Your task to perform on an android device: Clear the cart on target. Search for asus zenbook on target, select the first entry, and add it to the cart. Image 0: 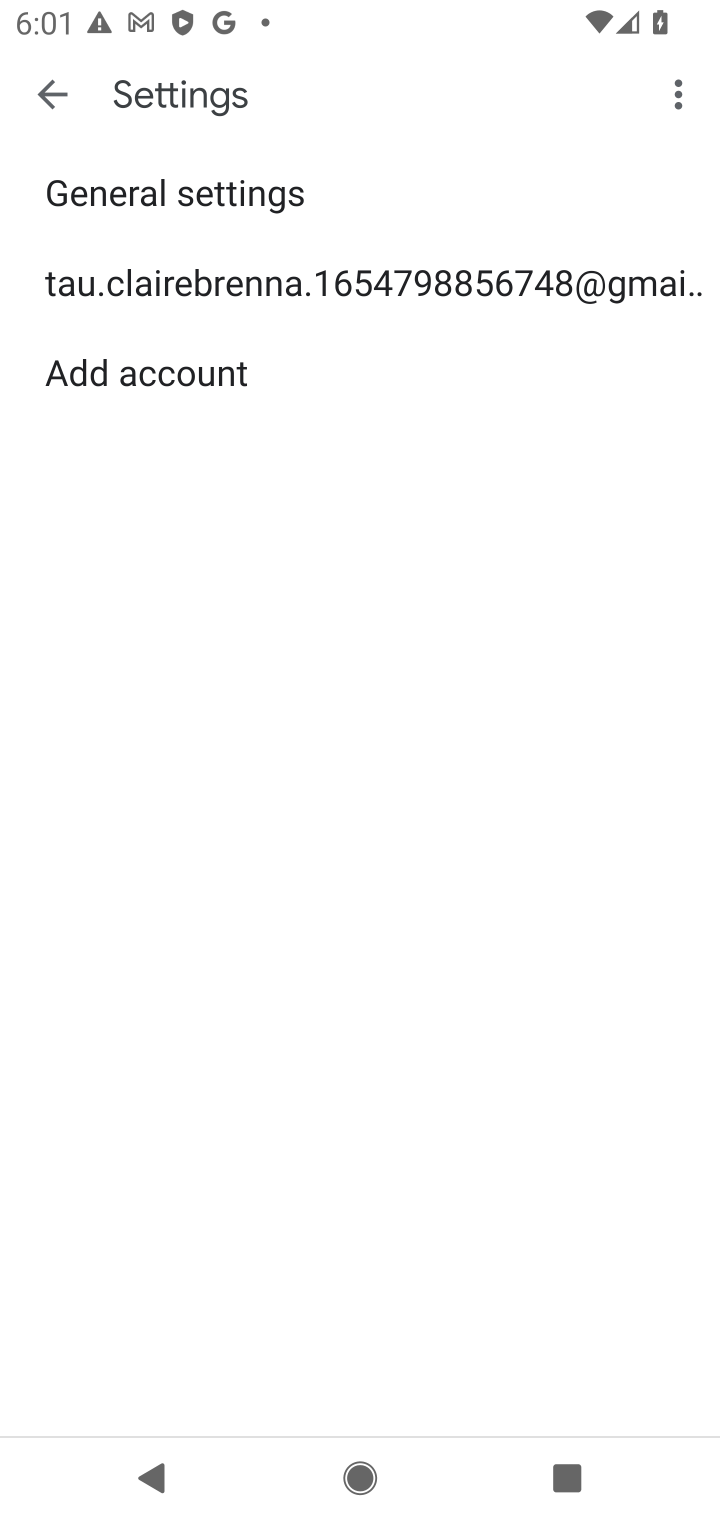
Step 0: press home button
Your task to perform on an android device: Clear the cart on target. Search for asus zenbook on target, select the first entry, and add it to the cart. Image 1: 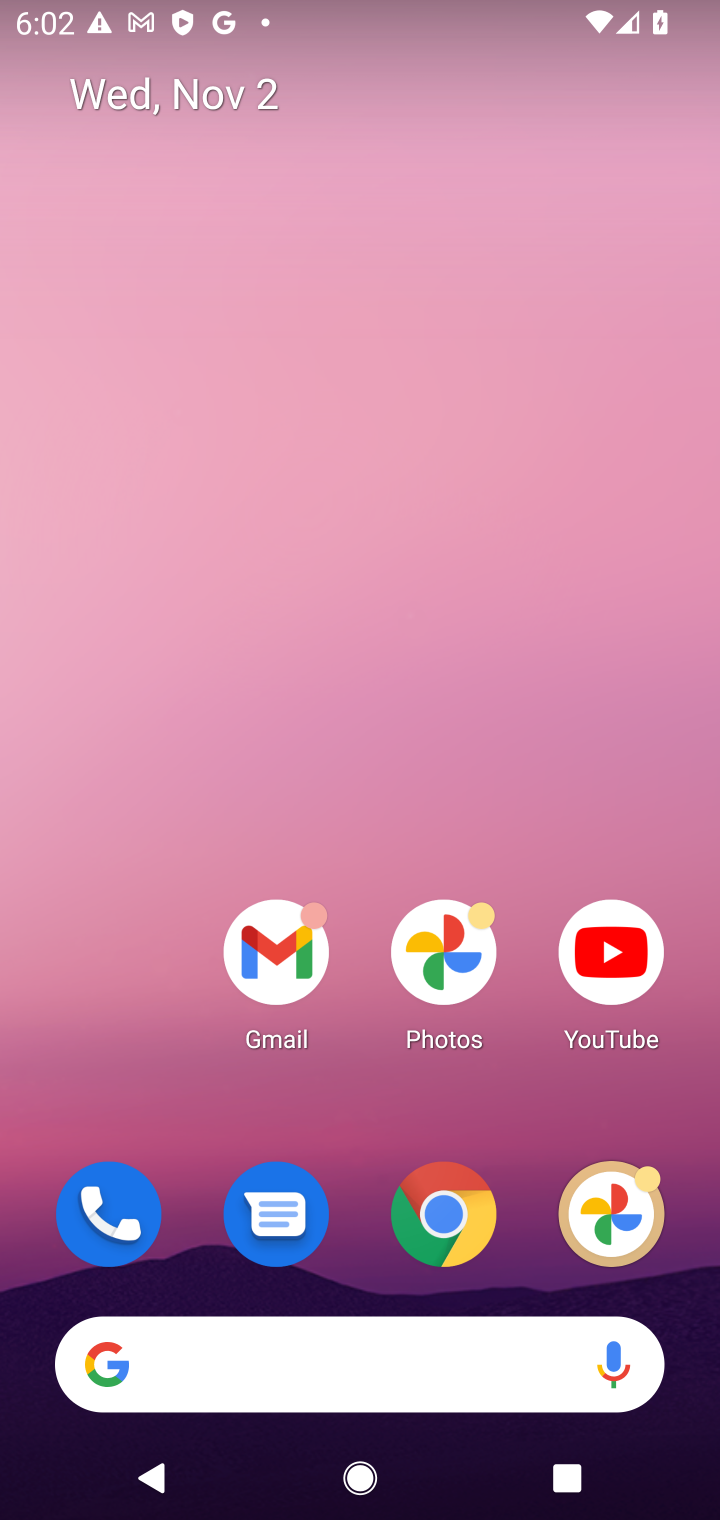
Step 1: click (442, 1216)
Your task to perform on an android device: Clear the cart on target. Search for asus zenbook on target, select the first entry, and add it to the cart. Image 2: 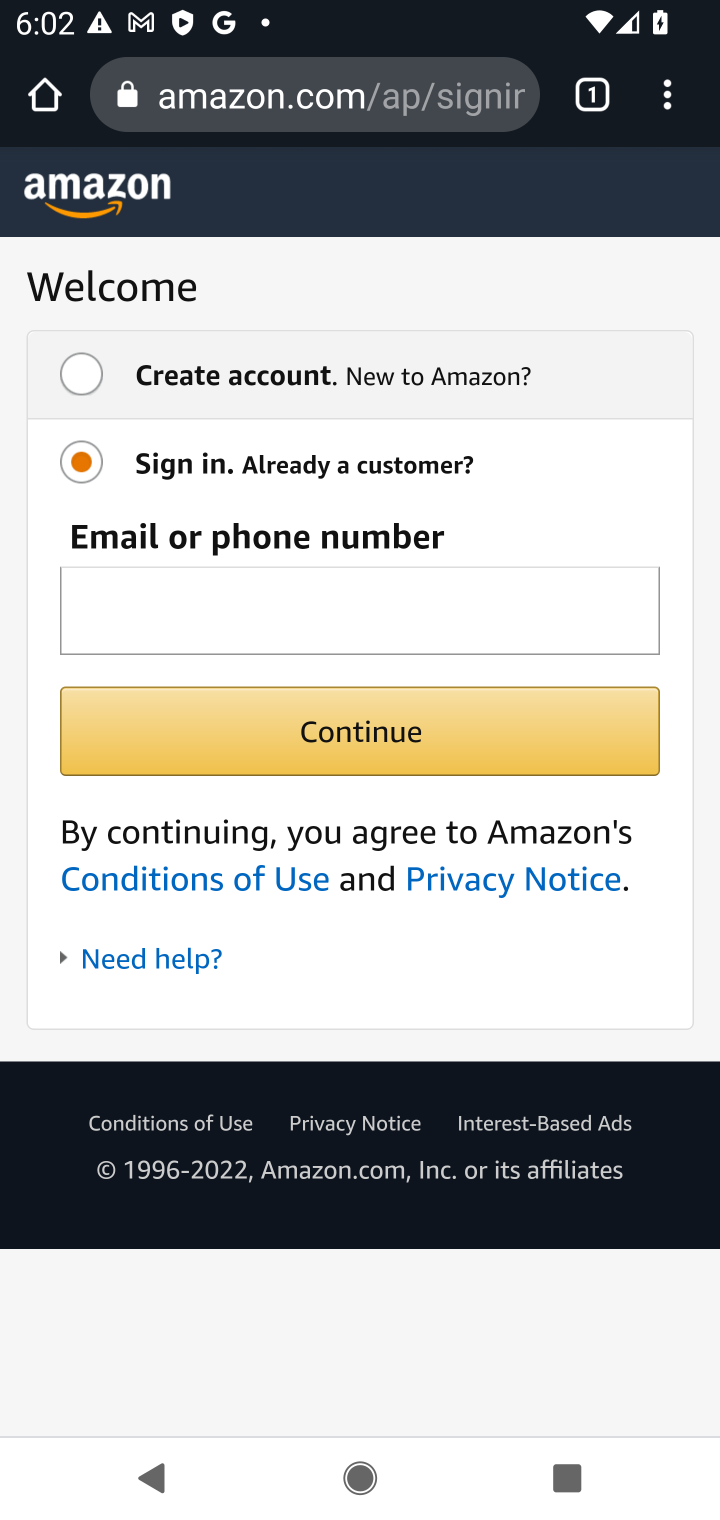
Step 2: click (390, 101)
Your task to perform on an android device: Clear the cart on target. Search for asus zenbook on target, select the first entry, and add it to the cart. Image 3: 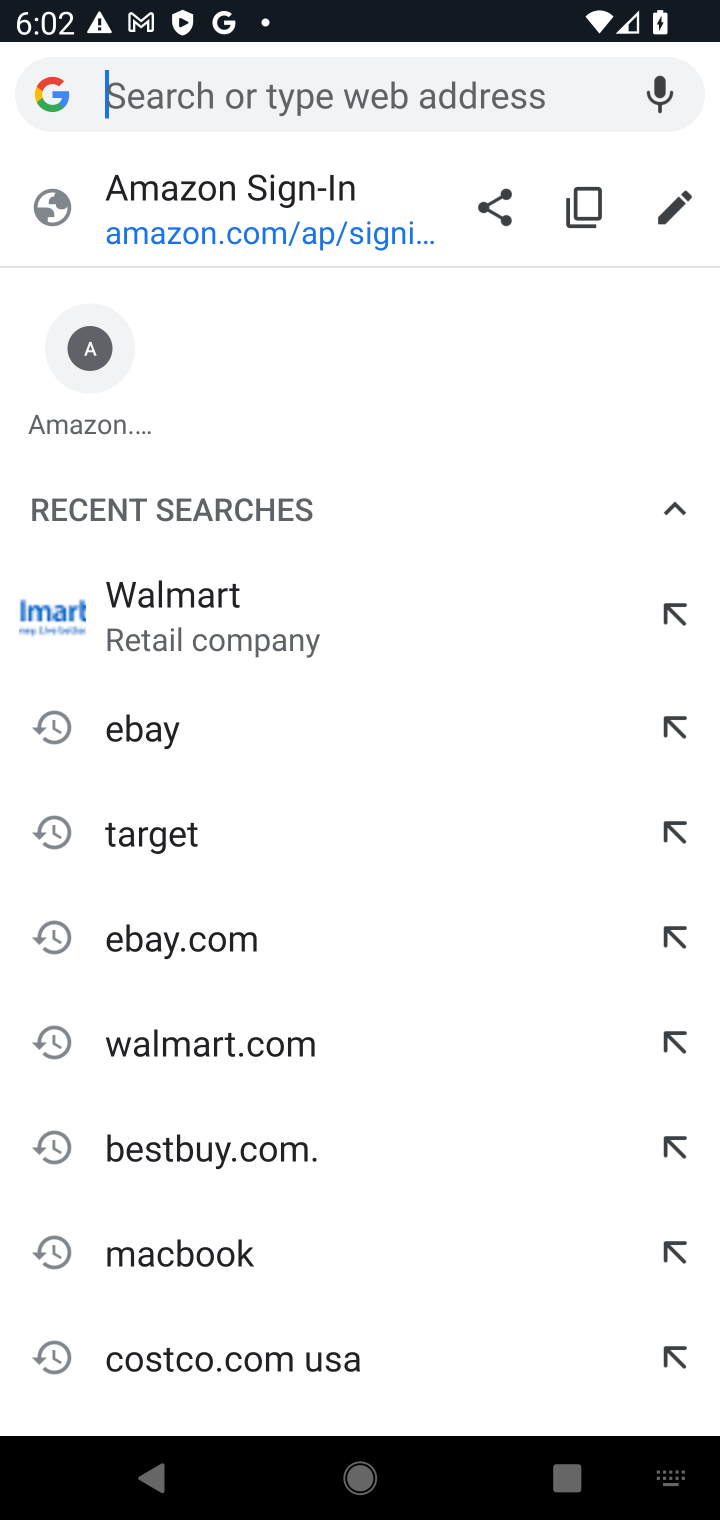
Step 3: type "target"
Your task to perform on an android device: Clear the cart on target. Search for asus zenbook on target, select the first entry, and add it to the cart. Image 4: 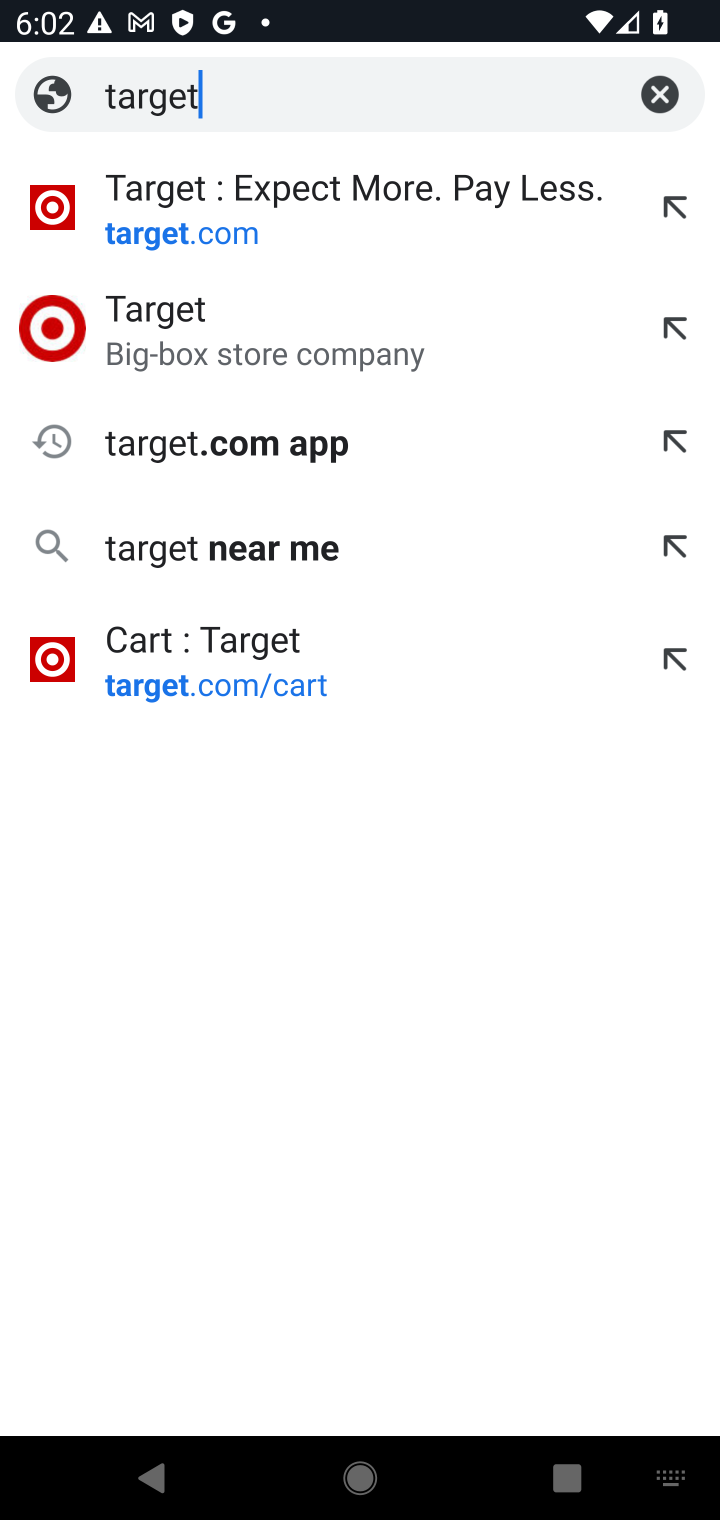
Step 4: click (158, 311)
Your task to perform on an android device: Clear the cart on target. Search for asus zenbook on target, select the first entry, and add it to the cart. Image 5: 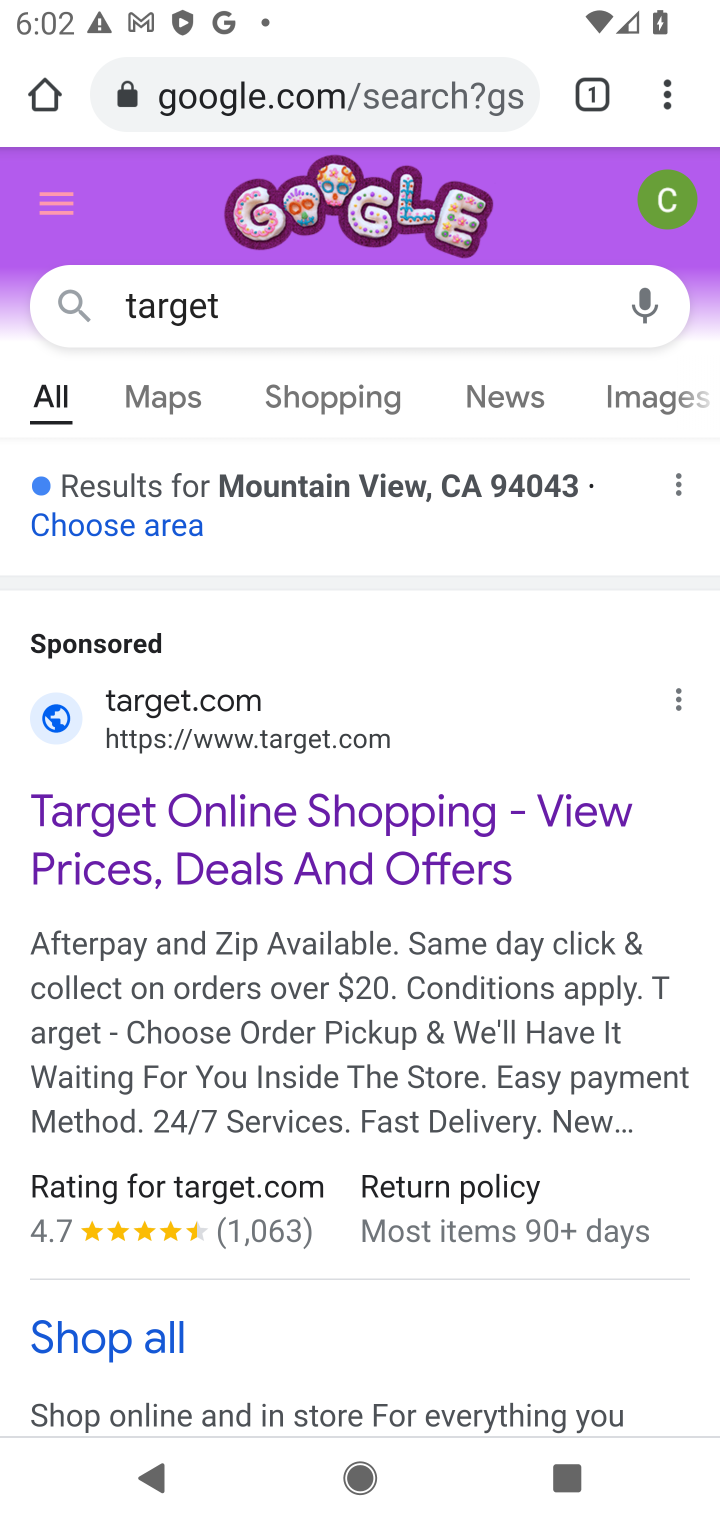
Step 5: drag from (279, 1327) to (422, 558)
Your task to perform on an android device: Clear the cart on target. Search for asus zenbook on target, select the first entry, and add it to the cart. Image 6: 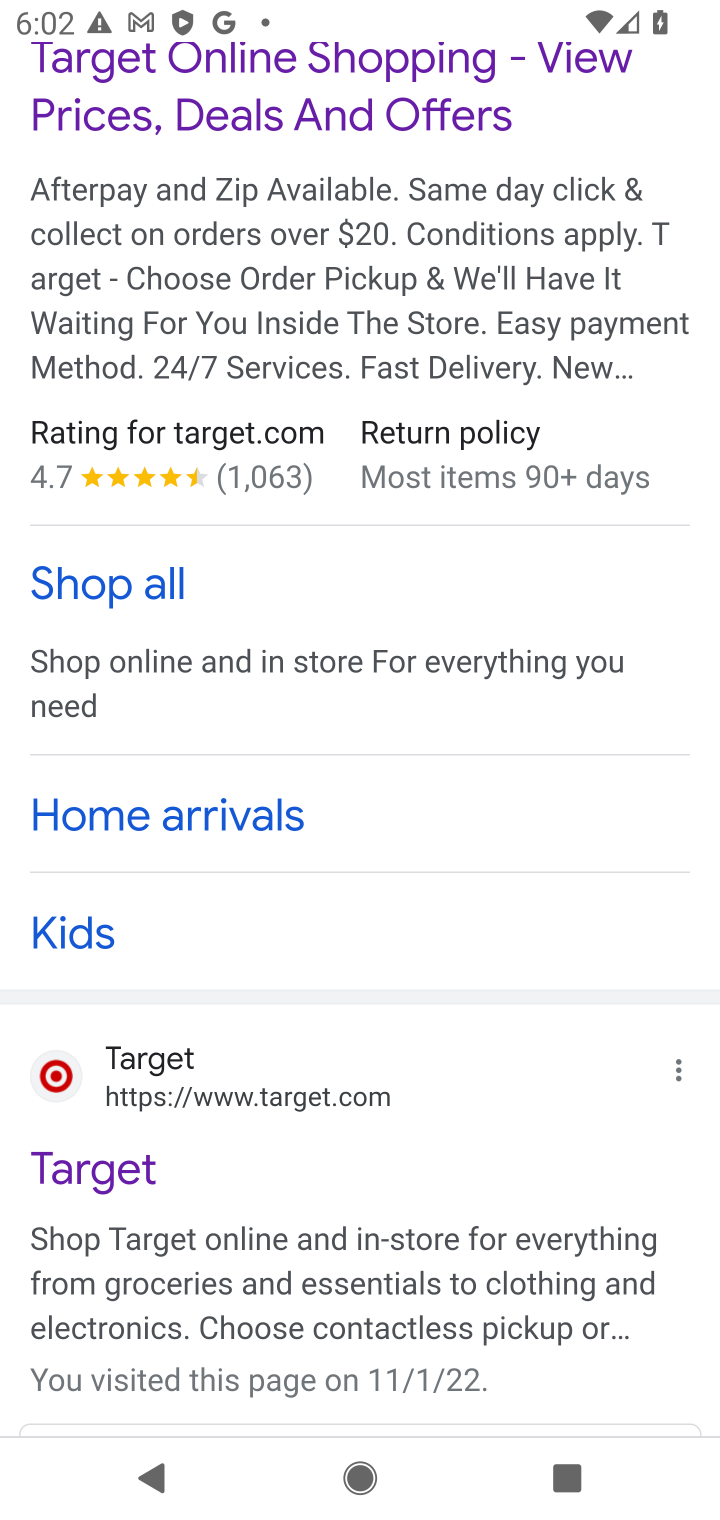
Step 6: click (223, 1160)
Your task to perform on an android device: Clear the cart on target. Search for asus zenbook on target, select the first entry, and add it to the cart. Image 7: 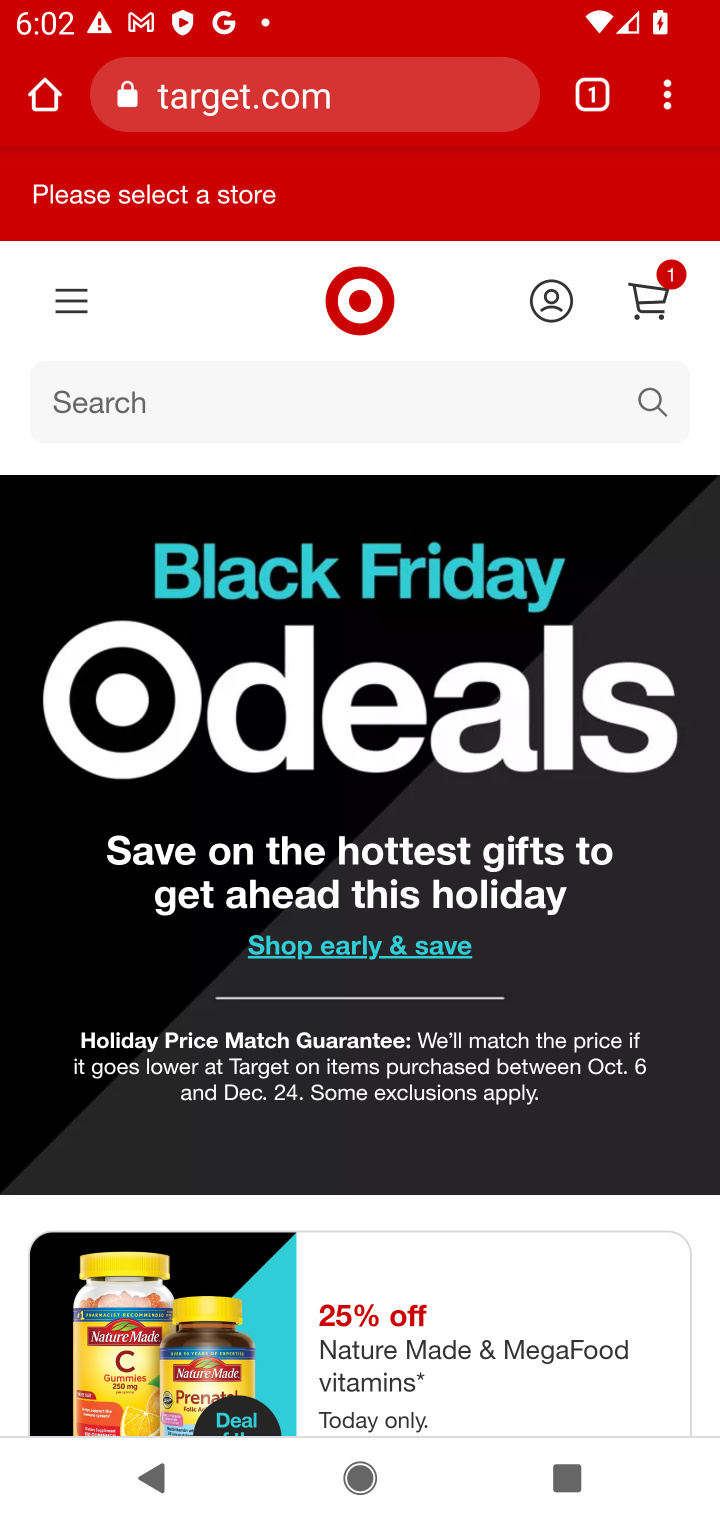
Step 7: click (661, 299)
Your task to perform on an android device: Clear the cart on target. Search for asus zenbook on target, select the first entry, and add it to the cart. Image 8: 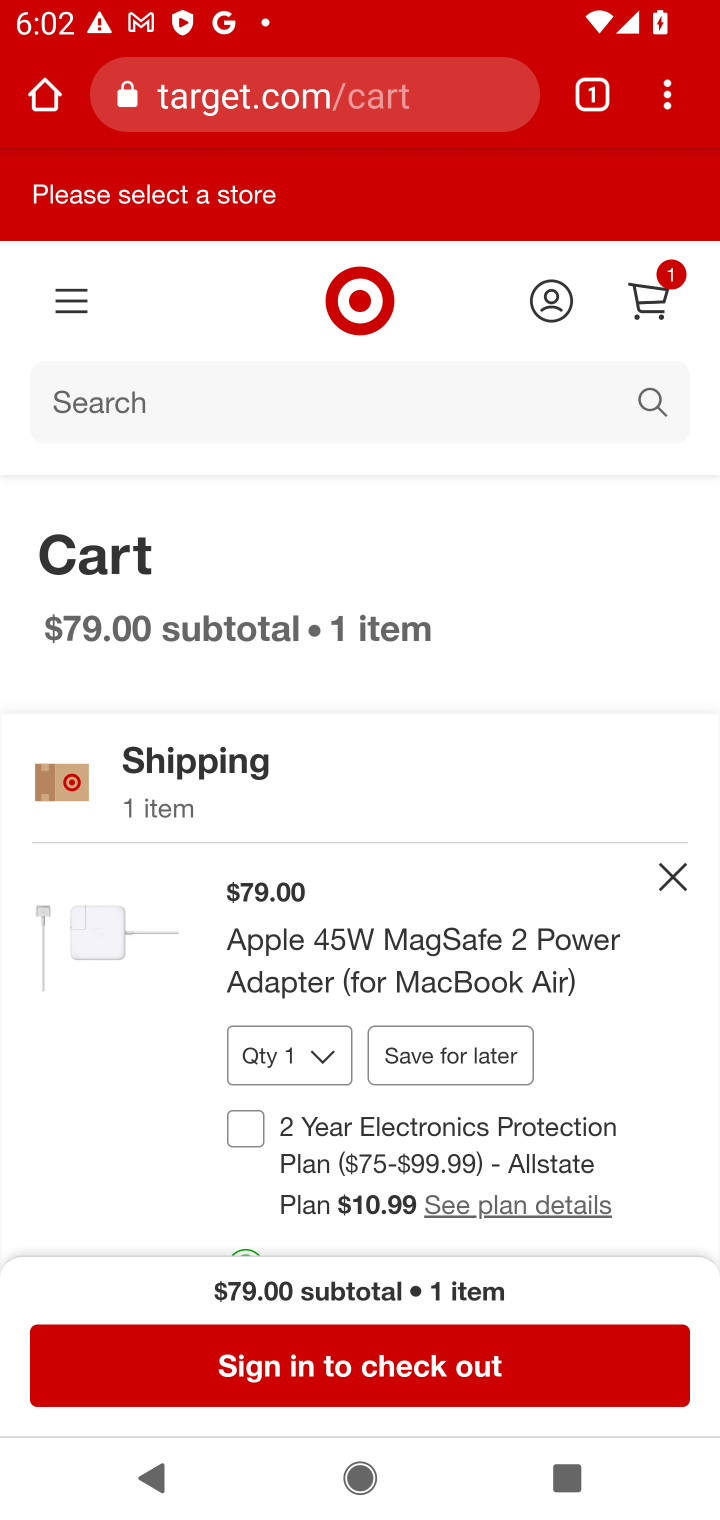
Step 8: click (674, 876)
Your task to perform on an android device: Clear the cart on target. Search for asus zenbook on target, select the first entry, and add it to the cart. Image 9: 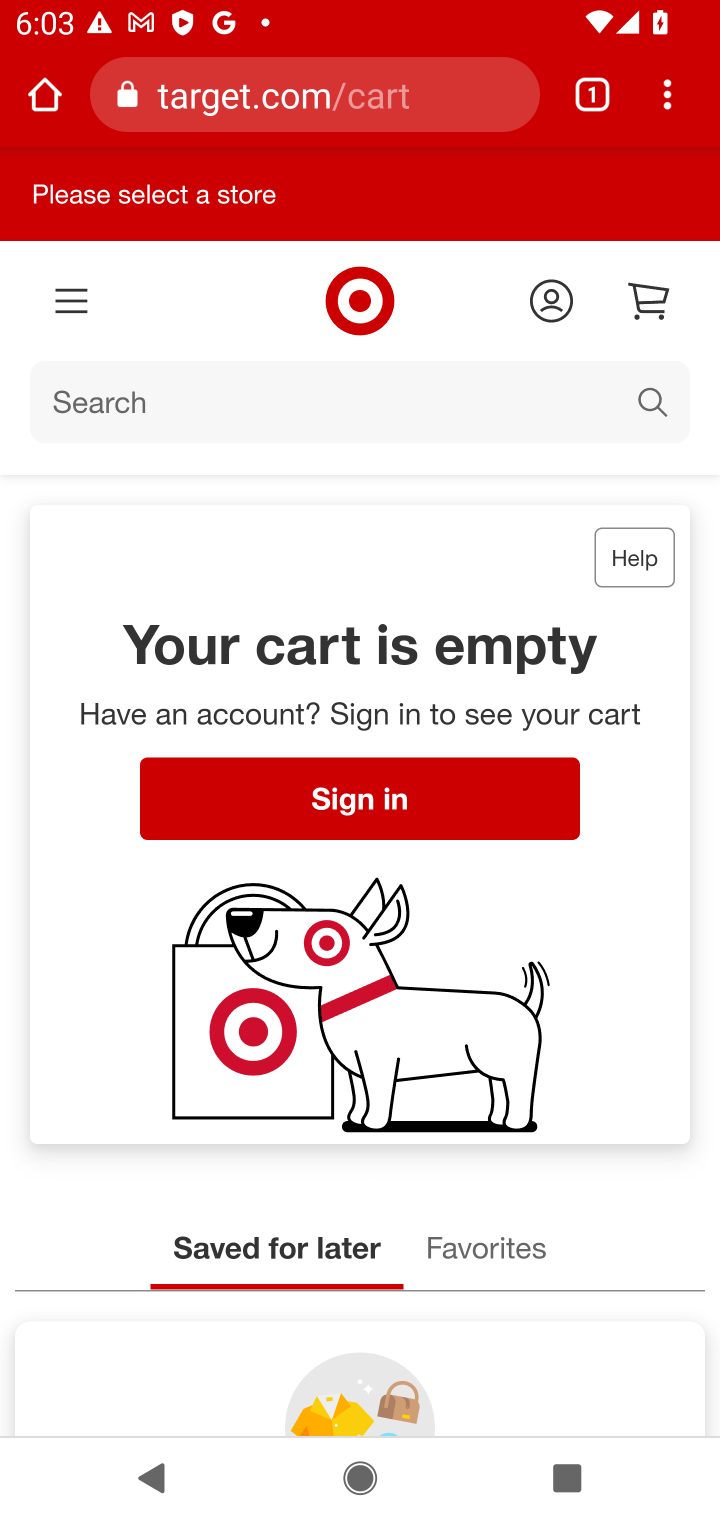
Step 9: click (293, 399)
Your task to perform on an android device: Clear the cart on target. Search for asus zenbook on target, select the first entry, and add it to the cart. Image 10: 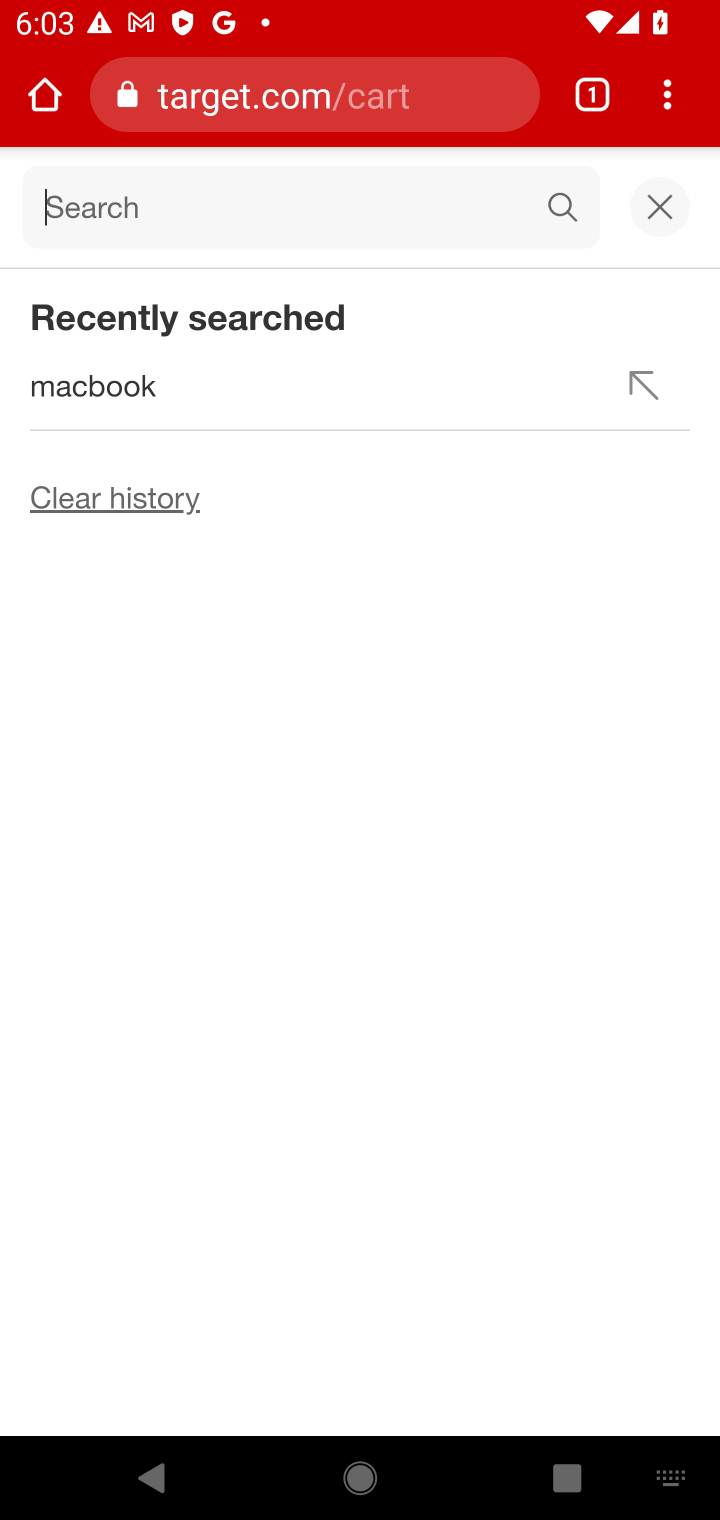
Step 10: type "asus zenbook"
Your task to perform on an android device: Clear the cart on target. Search for asus zenbook on target, select the first entry, and add it to the cart. Image 11: 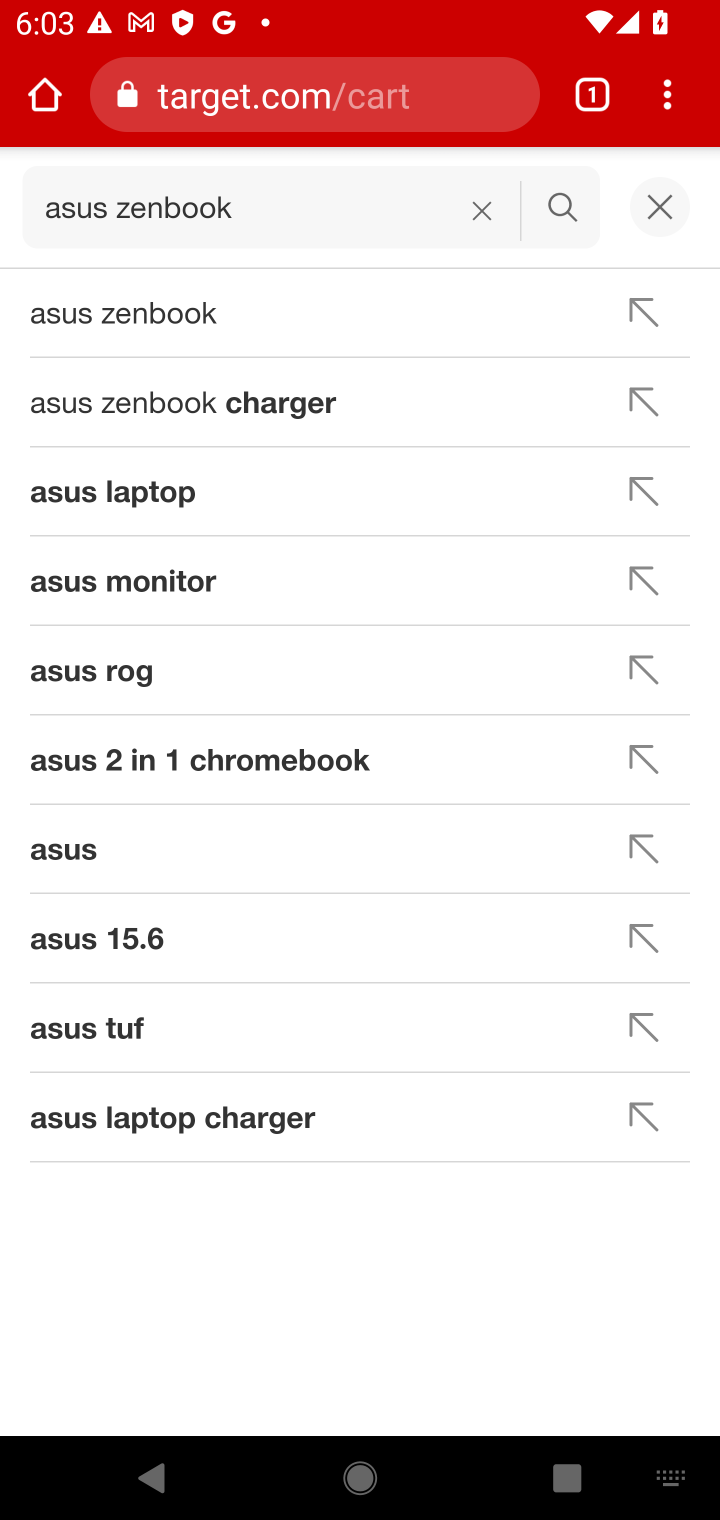
Step 11: click (200, 325)
Your task to perform on an android device: Clear the cart on target. Search for asus zenbook on target, select the first entry, and add it to the cart. Image 12: 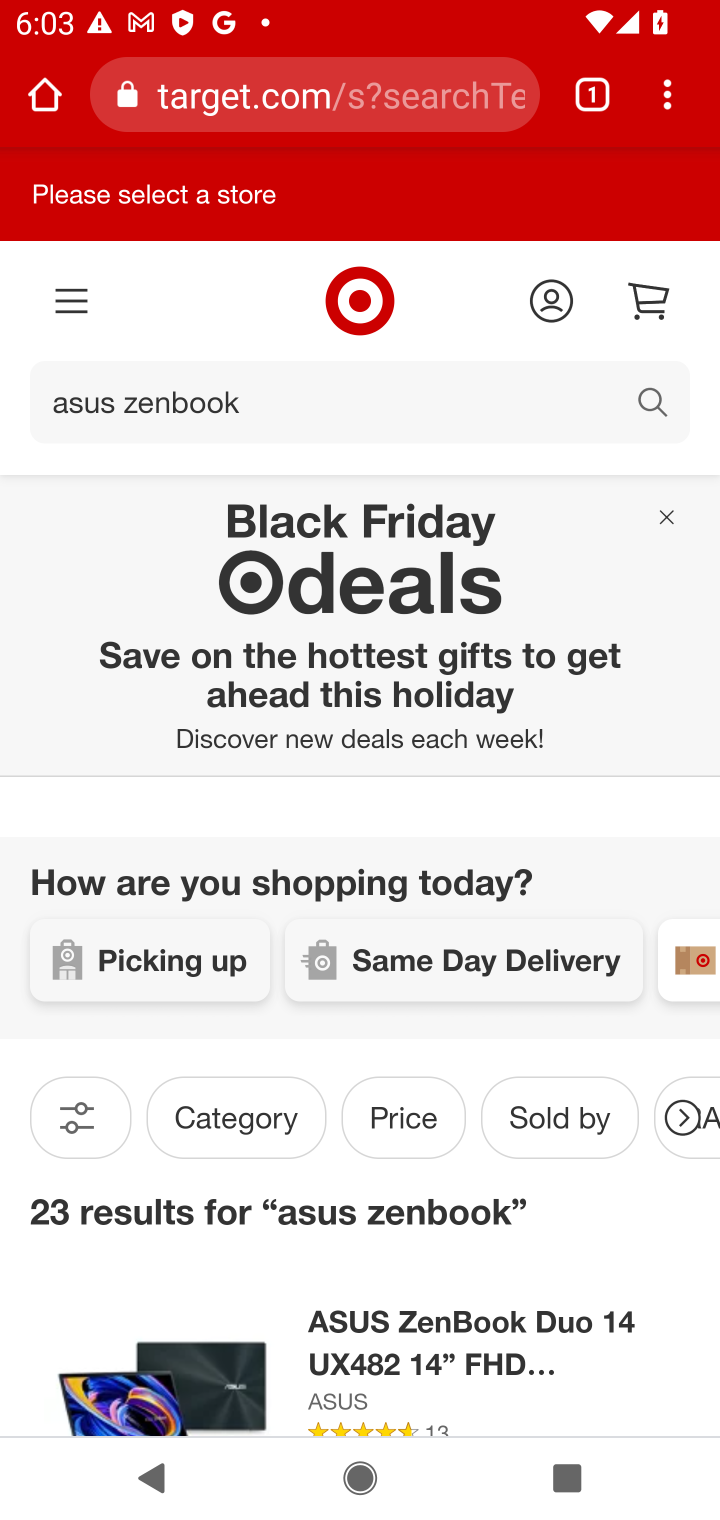
Step 12: click (444, 1347)
Your task to perform on an android device: Clear the cart on target. Search for asus zenbook on target, select the first entry, and add it to the cart. Image 13: 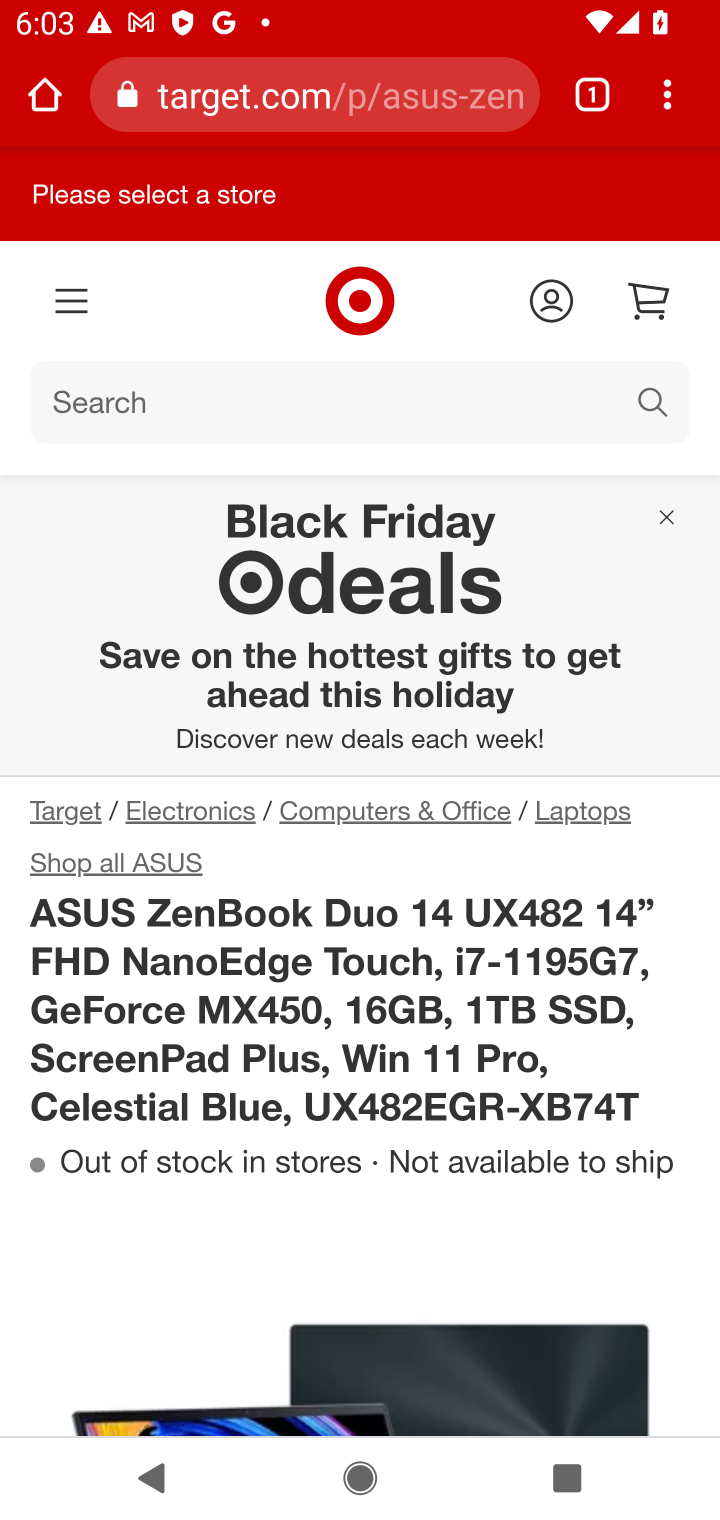
Step 13: drag from (441, 1236) to (470, 597)
Your task to perform on an android device: Clear the cart on target. Search for asus zenbook on target, select the first entry, and add it to the cart. Image 14: 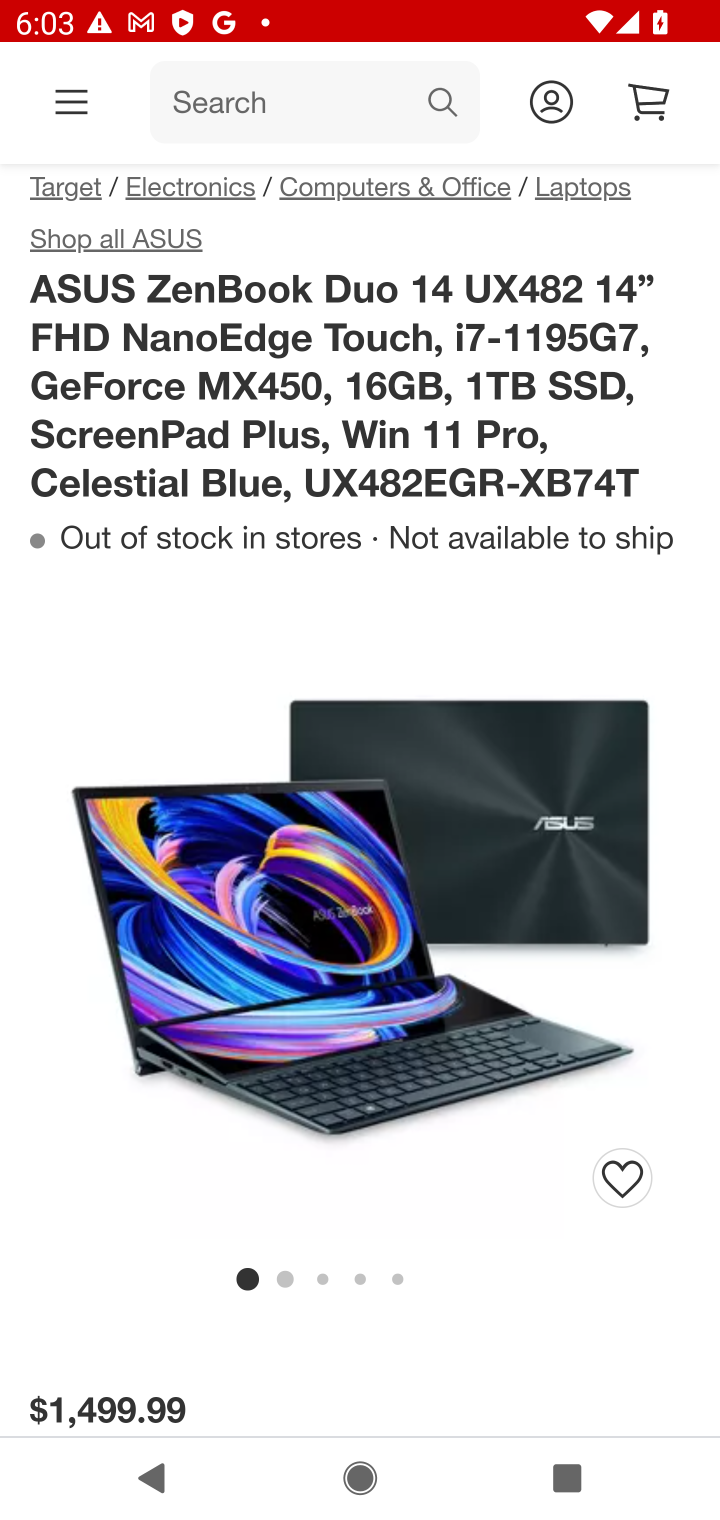
Step 14: drag from (445, 1236) to (458, 623)
Your task to perform on an android device: Clear the cart on target. Search for asus zenbook on target, select the first entry, and add it to the cart. Image 15: 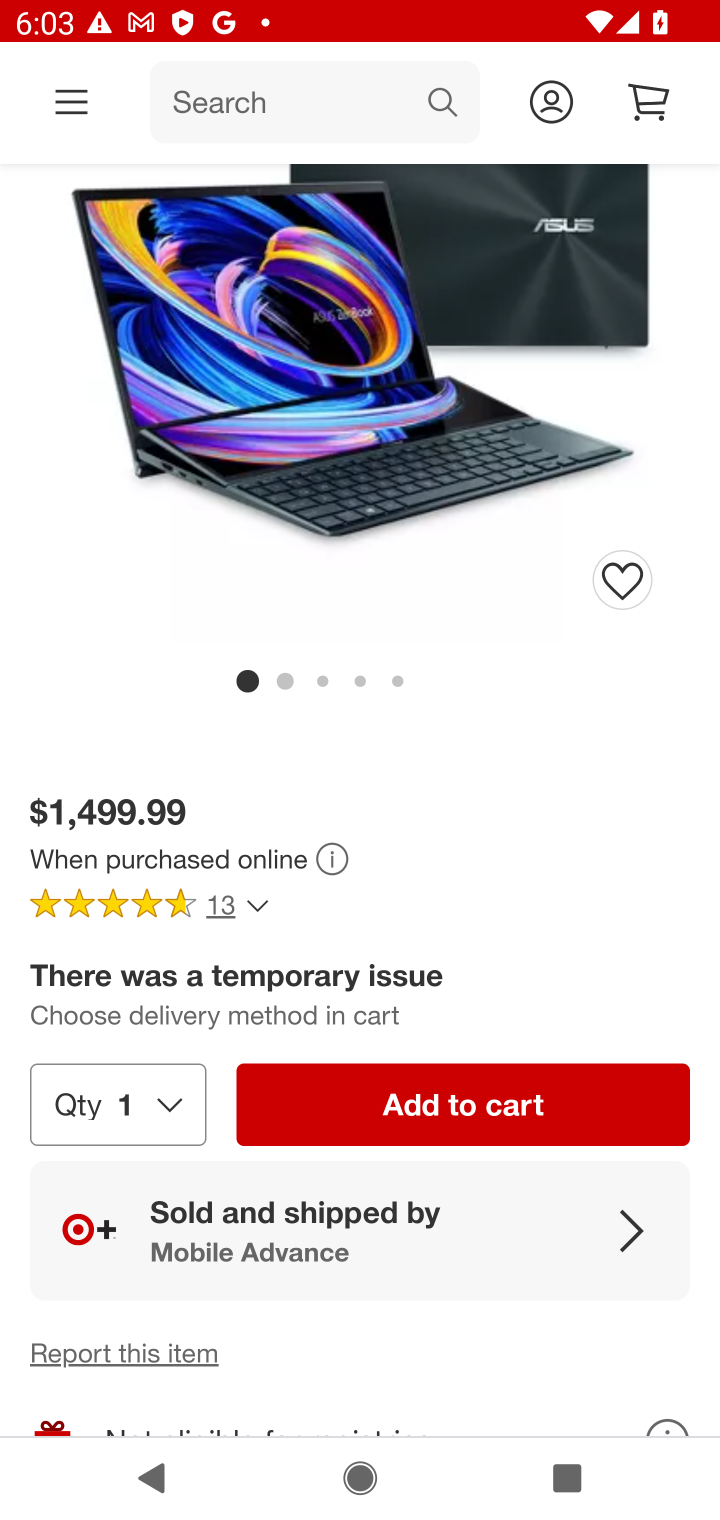
Step 15: drag from (456, 1304) to (493, 484)
Your task to perform on an android device: Clear the cart on target. Search for asus zenbook on target, select the first entry, and add it to the cart. Image 16: 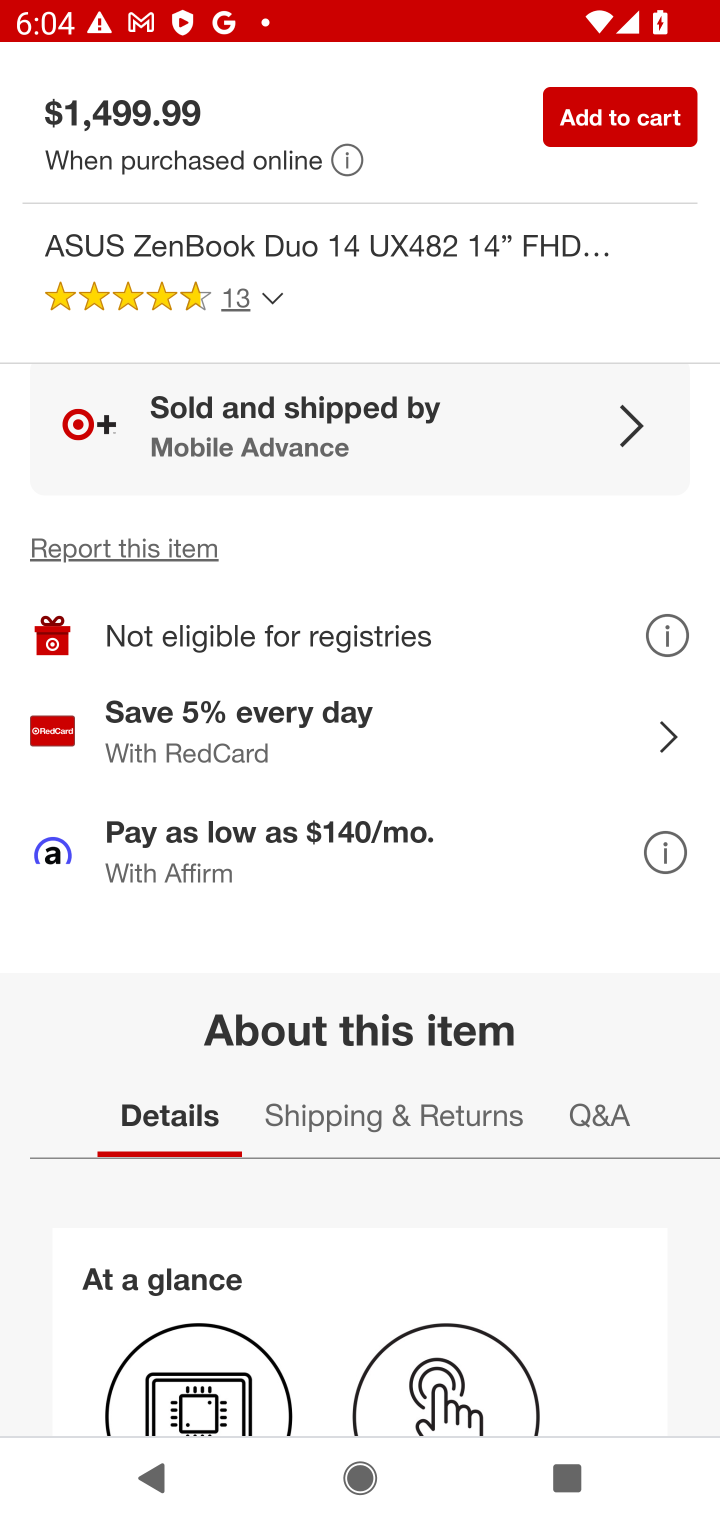
Step 16: click (594, 130)
Your task to perform on an android device: Clear the cart on target. Search for asus zenbook on target, select the first entry, and add it to the cart. Image 17: 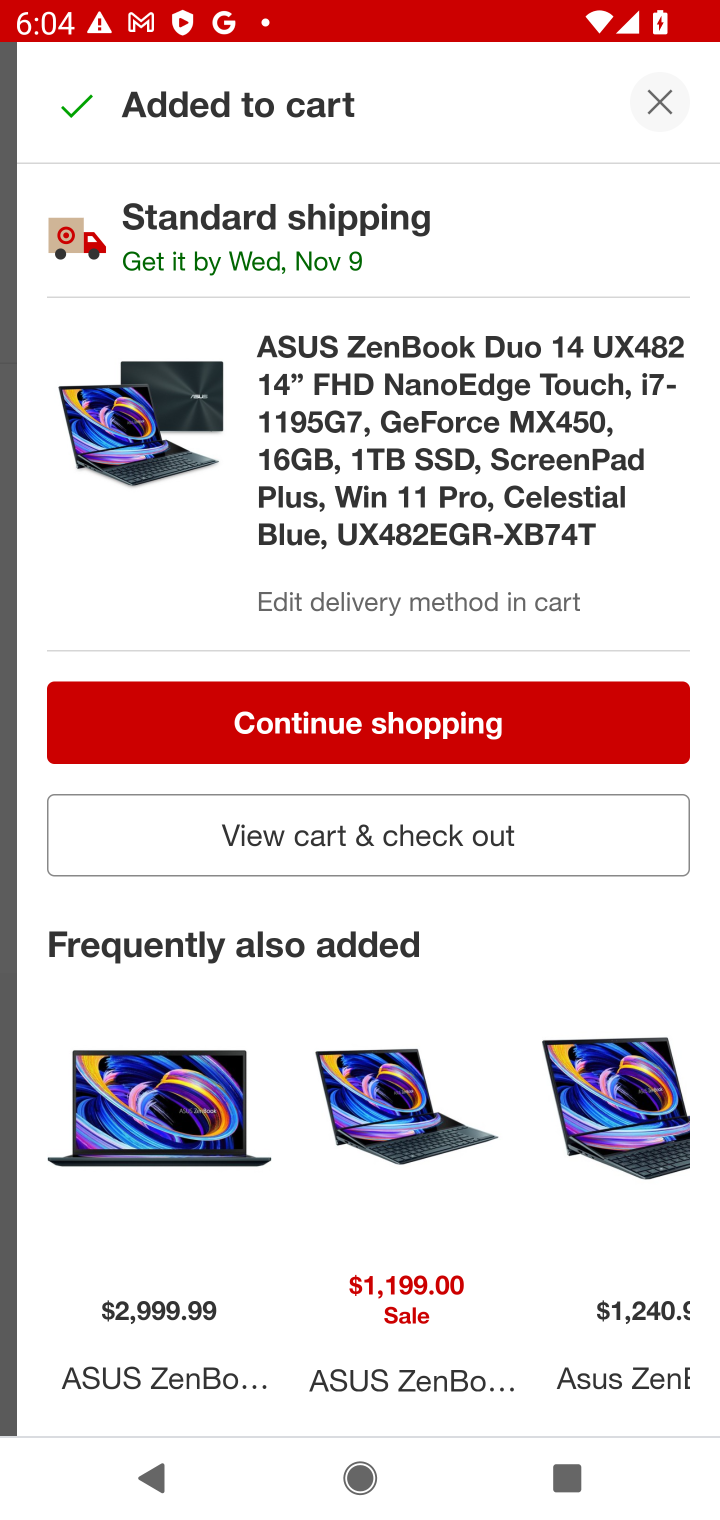
Step 17: click (393, 850)
Your task to perform on an android device: Clear the cart on target. Search for asus zenbook on target, select the first entry, and add it to the cart. Image 18: 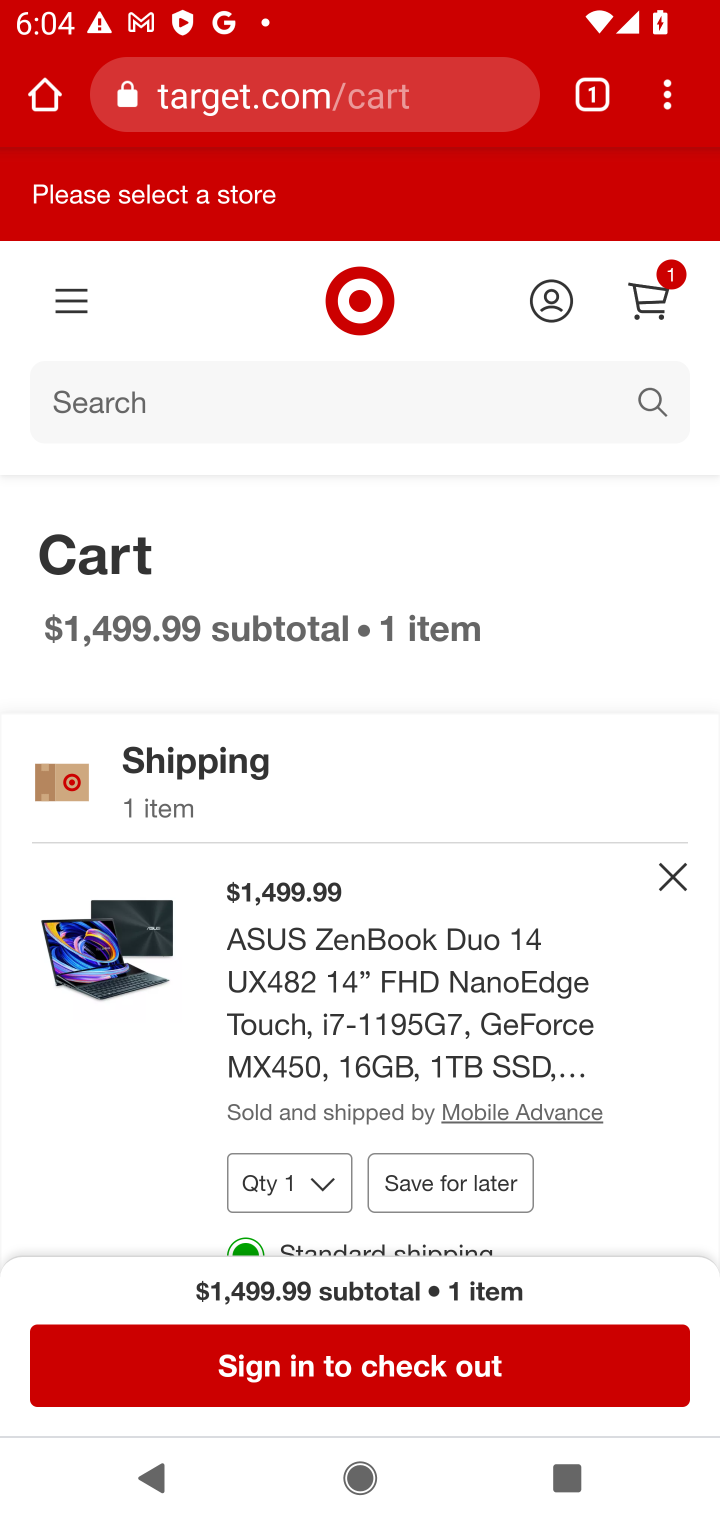
Step 18: task complete